Your task to perform on an android device: turn notification dots off Image 0: 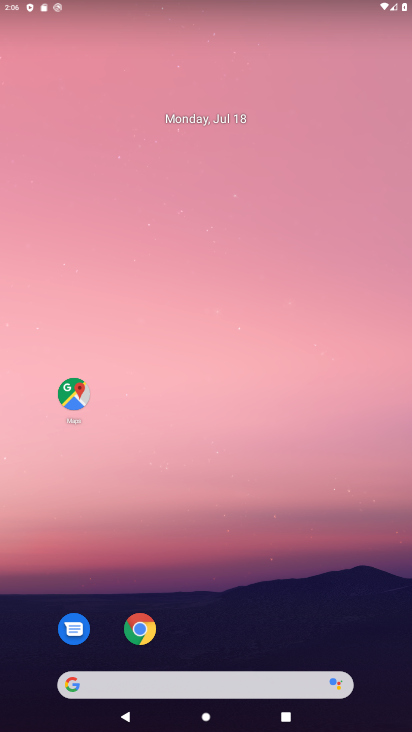
Step 0: drag from (220, 648) to (246, 264)
Your task to perform on an android device: turn notification dots off Image 1: 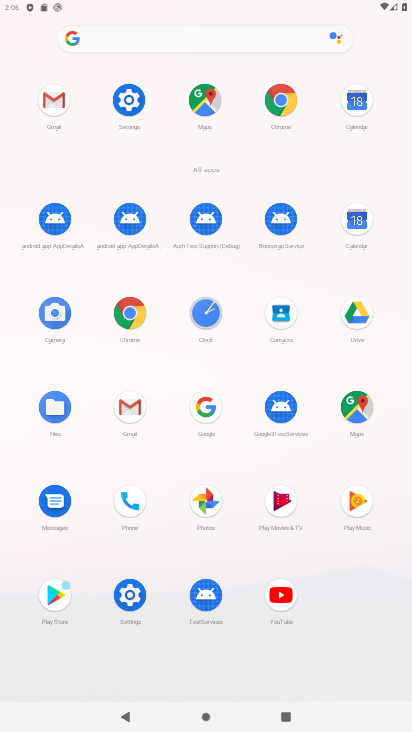
Step 1: click (128, 118)
Your task to perform on an android device: turn notification dots off Image 2: 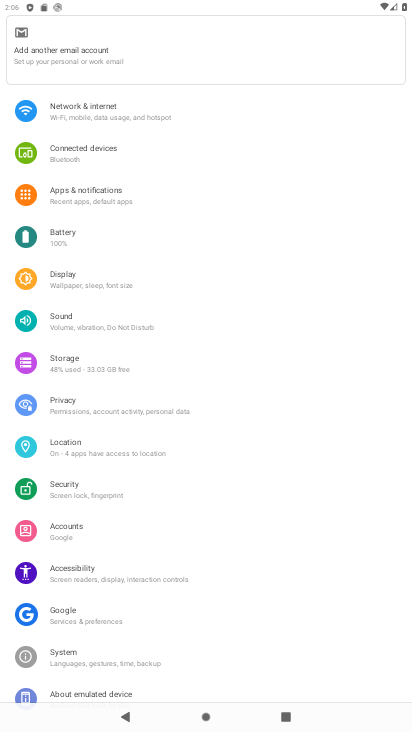
Step 2: click (136, 192)
Your task to perform on an android device: turn notification dots off Image 3: 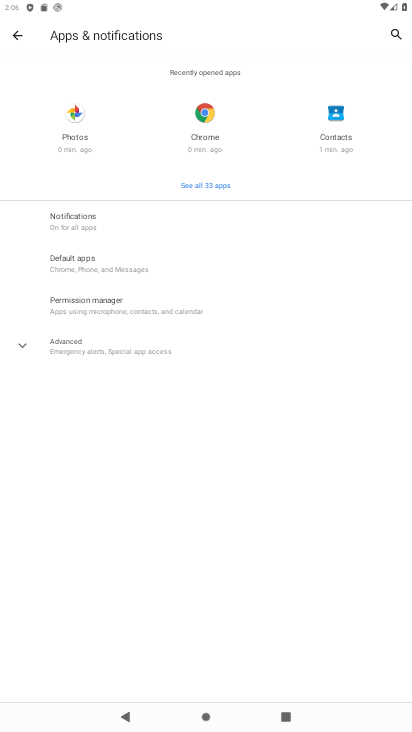
Step 3: click (132, 226)
Your task to perform on an android device: turn notification dots off Image 4: 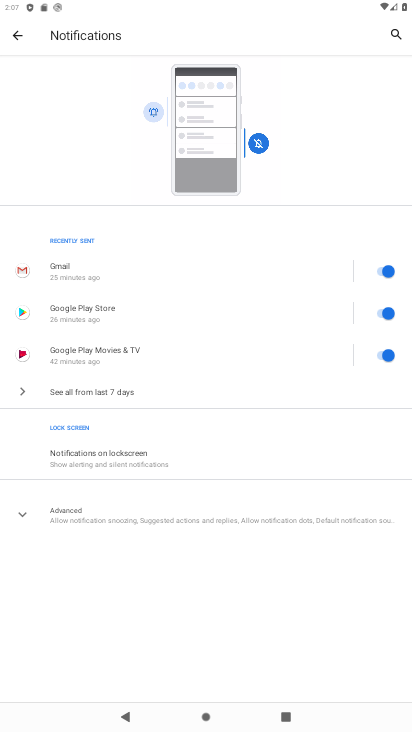
Step 4: click (128, 513)
Your task to perform on an android device: turn notification dots off Image 5: 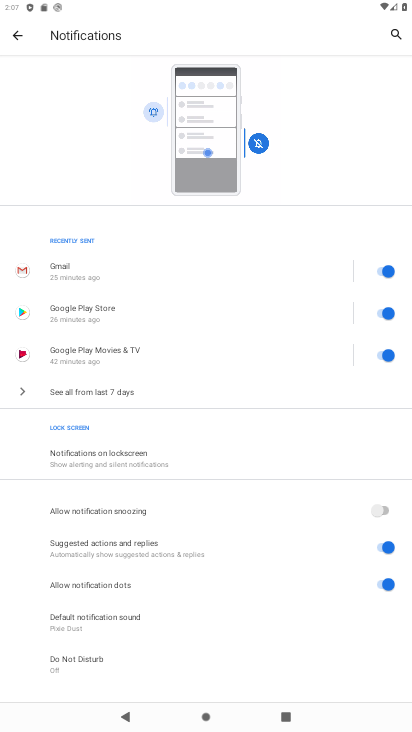
Step 5: click (379, 581)
Your task to perform on an android device: turn notification dots off Image 6: 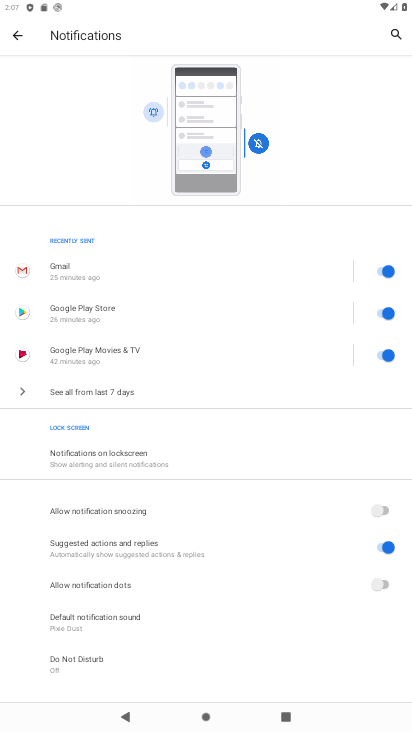
Step 6: task complete